Your task to perform on an android device: set the timer Image 0: 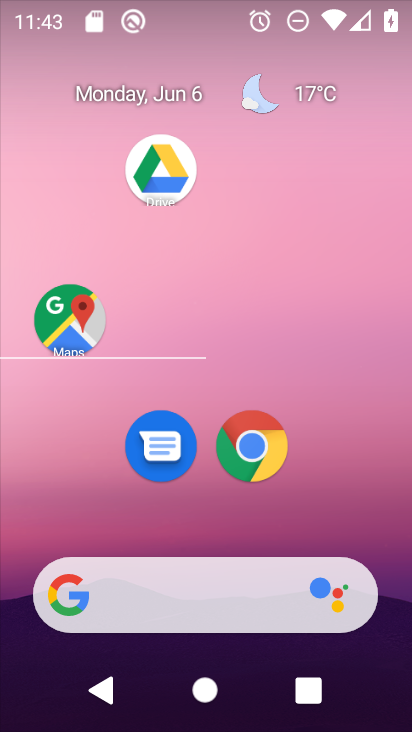
Step 0: drag from (146, 533) to (195, 2)
Your task to perform on an android device: set the timer Image 1: 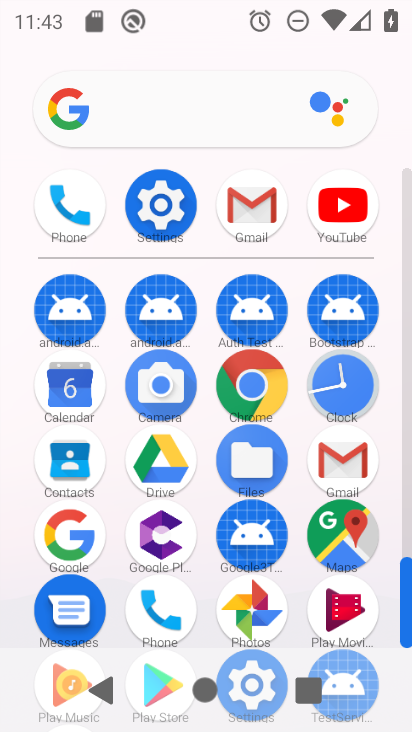
Step 1: click (353, 391)
Your task to perform on an android device: set the timer Image 2: 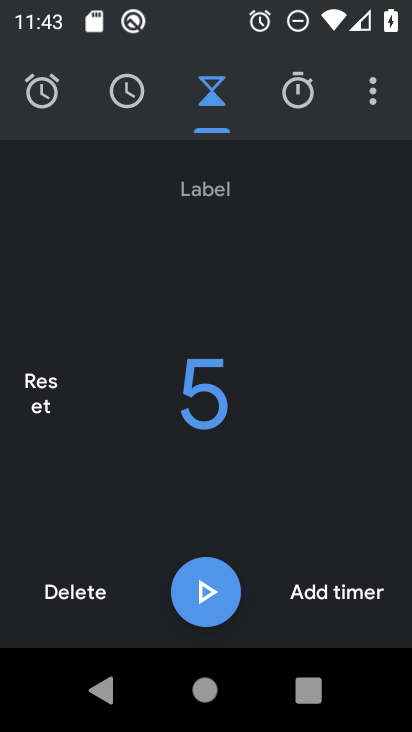
Step 2: click (211, 577)
Your task to perform on an android device: set the timer Image 3: 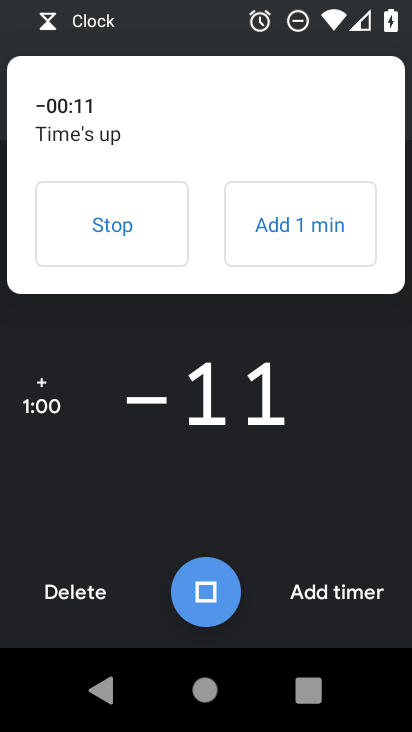
Step 3: click (117, 222)
Your task to perform on an android device: set the timer Image 4: 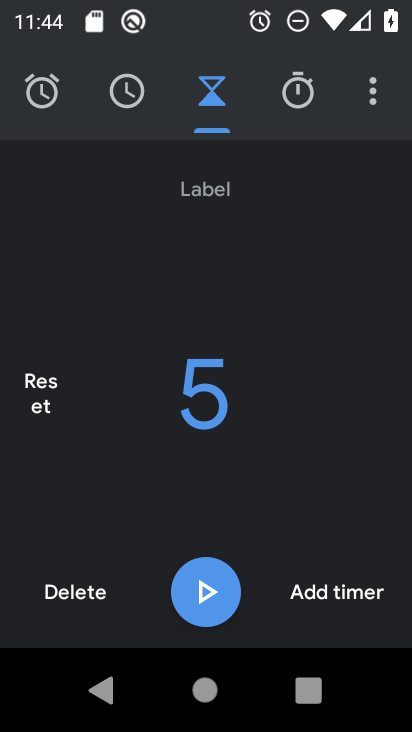
Step 4: task complete